Your task to perform on an android device: turn on the 24-hour format for clock Image 0: 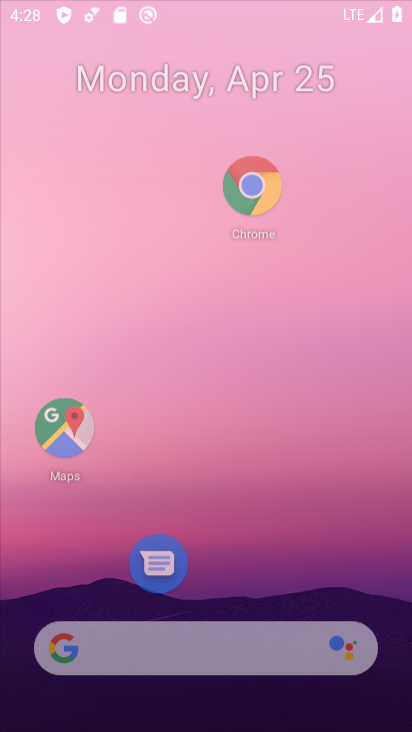
Step 0: click (381, 76)
Your task to perform on an android device: turn on the 24-hour format for clock Image 1: 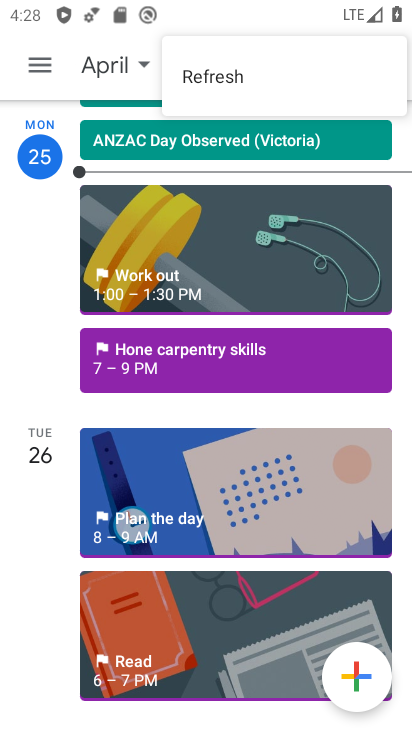
Step 1: press home button
Your task to perform on an android device: turn on the 24-hour format for clock Image 2: 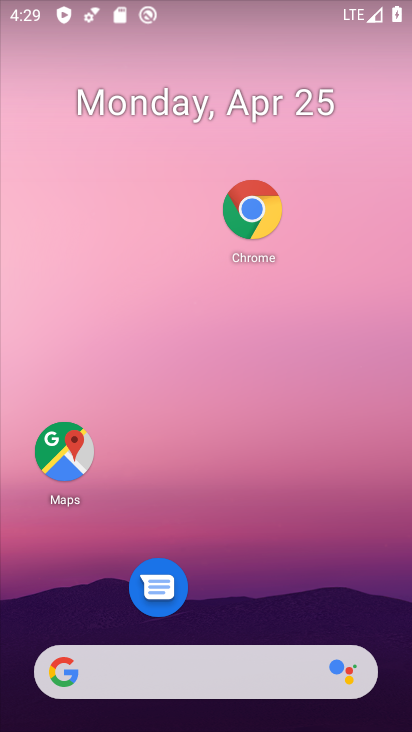
Step 2: drag from (388, 602) to (331, 142)
Your task to perform on an android device: turn on the 24-hour format for clock Image 3: 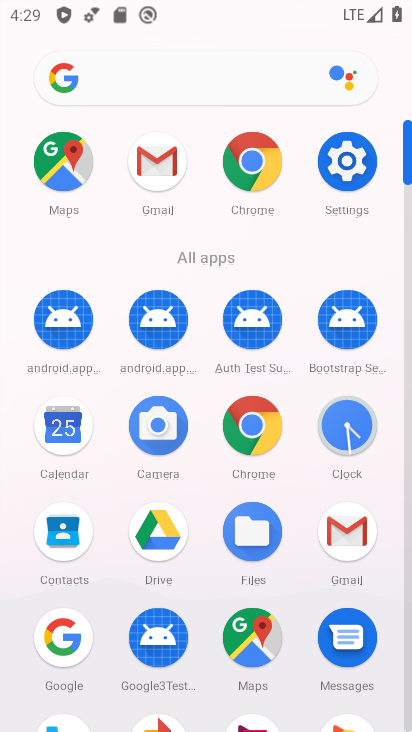
Step 3: click (358, 428)
Your task to perform on an android device: turn on the 24-hour format for clock Image 4: 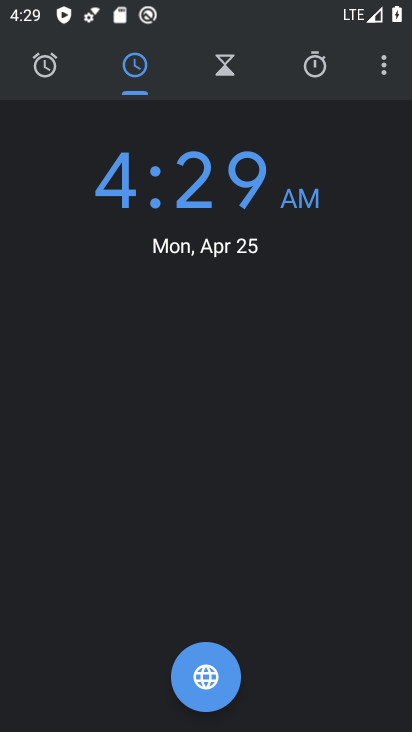
Step 4: click (392, 71)
Your task to perform on an android device: turn on the 24-hour format for clock Image 5: 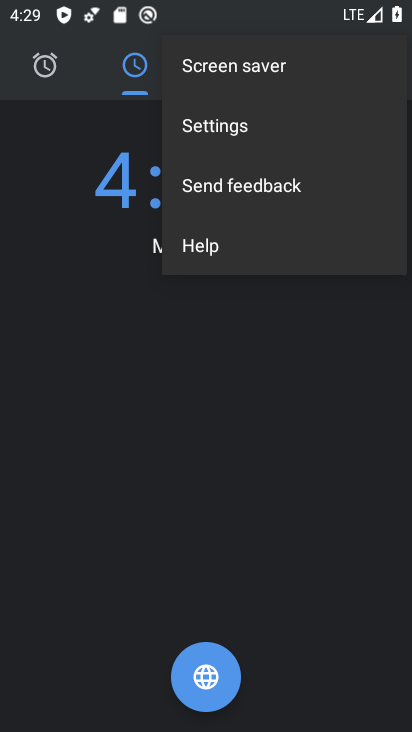
Step 5: click (343, 112)
Your task to perform on an android device: turn on the 24-hour format for clock Image 6: 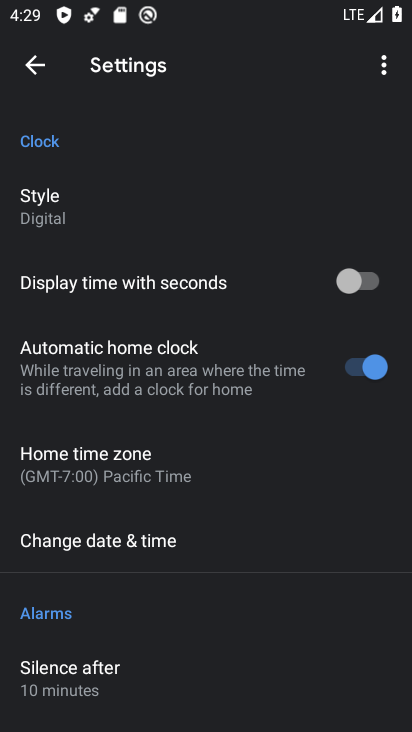
Step 6: click (254, 530)
Your task to perform on an android device: turn on the 24-hour format for clock Image 7: 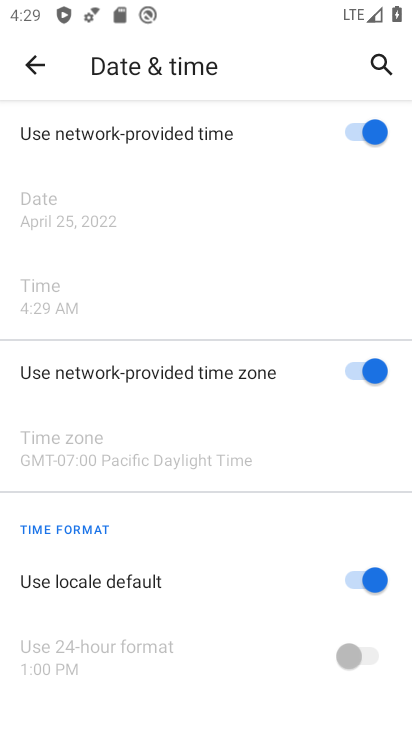
Step 7: drag from (271, 599) to (257, 246)
Your task to perform on an android device: turn on the 24-hour format for clock Image 8: 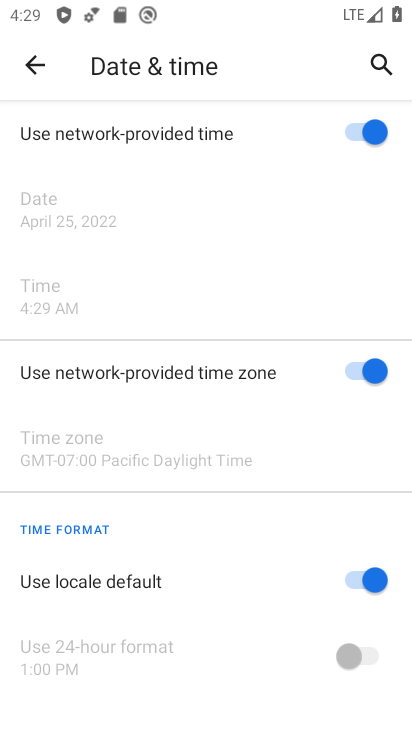
Step 8: click (362, 591)
Your task to perform on an android device: turn on the 24-hour format for clock Image 9: 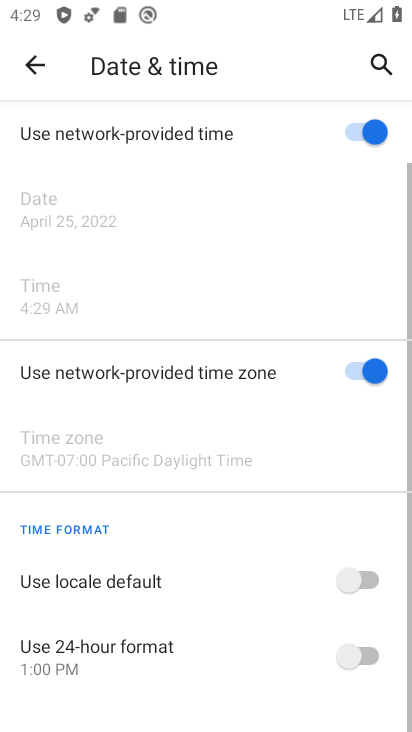
Step 9: click (369, 644)
Your task to perform on an android device: turn on the 24-hour format for clock Image 10: 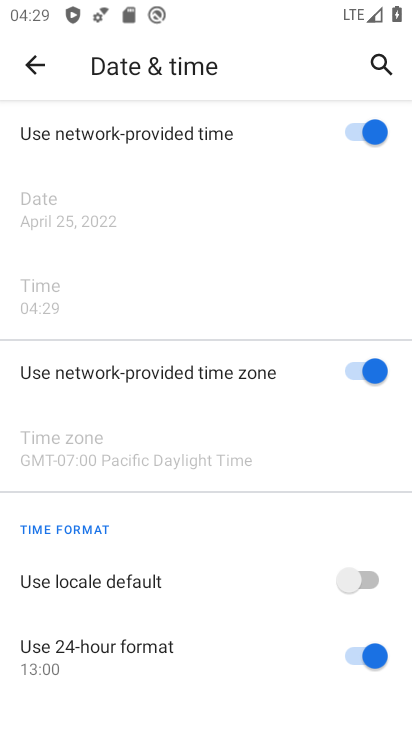
Step 10: task complete